Your task to perform on an android device: see tabs open on other devices in the chrome app Image 0: 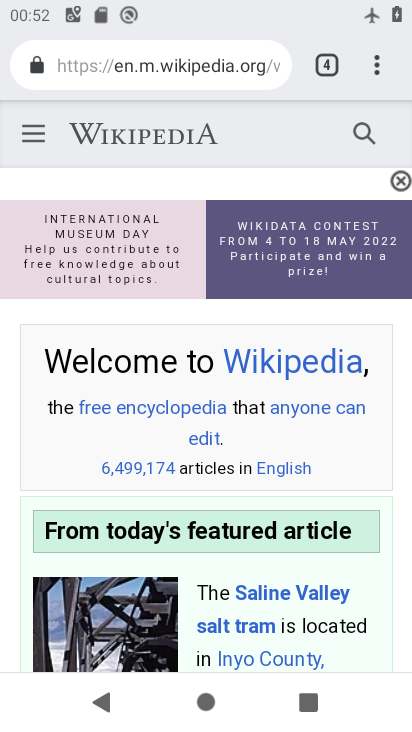
Step 0: click (379, 79)
Your task to perform on an android device: see tabs open on other devices in the chrome app Image 1: 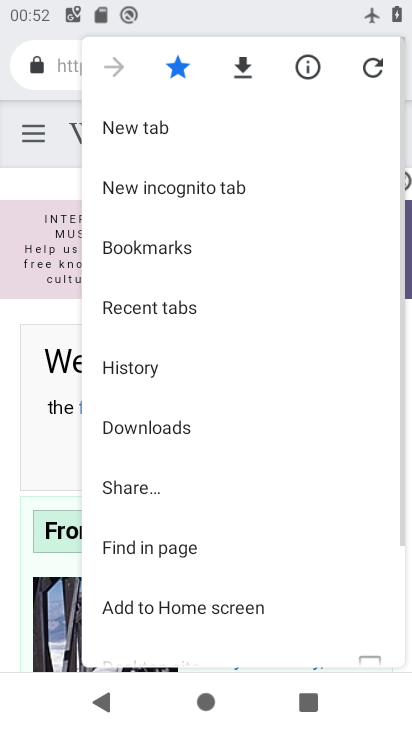
Step 1: click (184, 316)
Your task to perform on an android device: see tabs open on other devices in the chrome app Image 2: 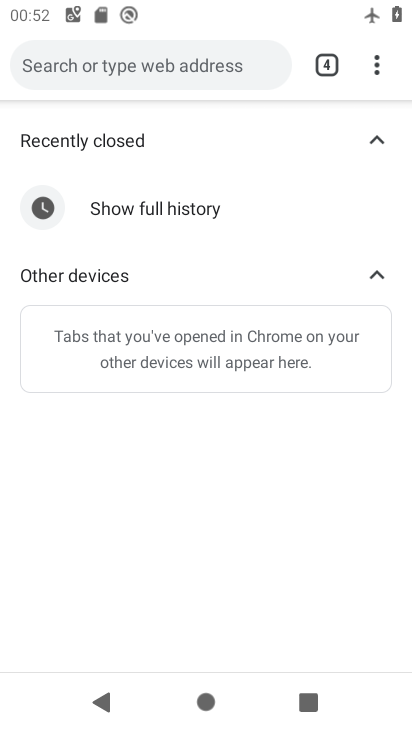
Step 2: task complete